Your task to perform on an android device: toggle wifi Image 0: 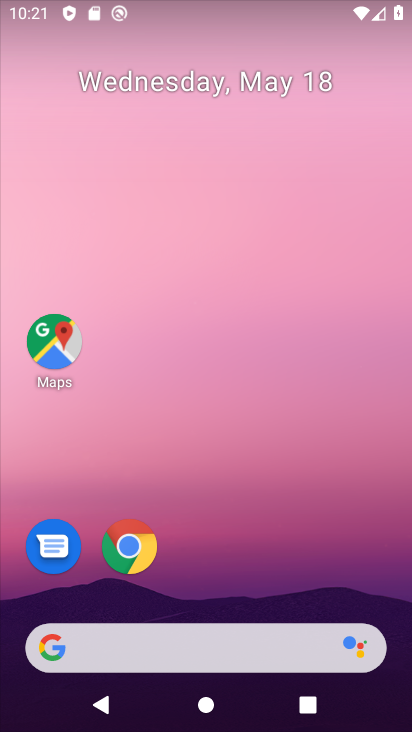
Step 0: drag from (254, 11) to (333, 436)
Your task to perform on an android device: toggle wifi Image 1: 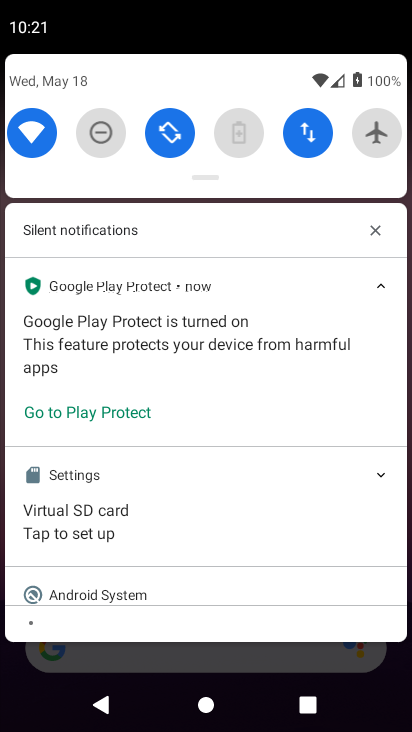
Step 1: click (23, 132)
Your task to perform on an android device: toggle wifi Image 2: 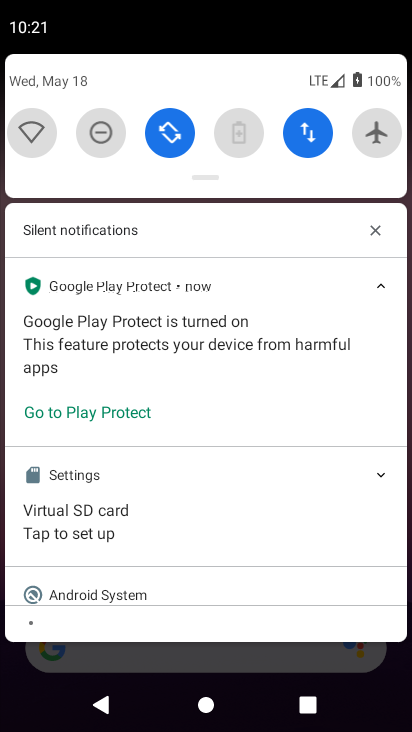
Step 2: click (23, 132)
Your task to perform on an android device: toggle wifi Image 3: 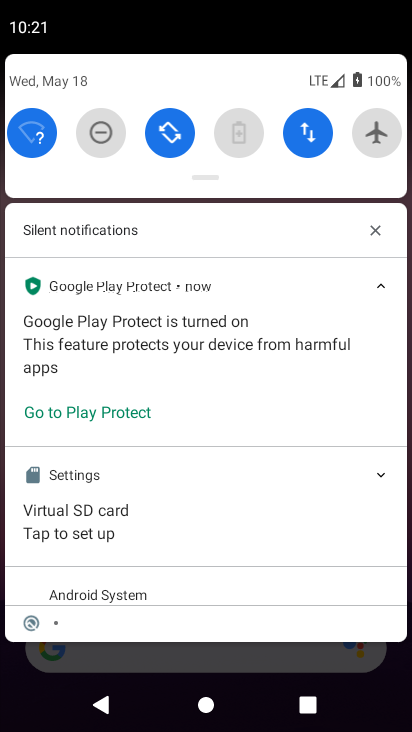
Step 3: task complete